Your task to perform on an android device: Toggle the flashlight Image 0: 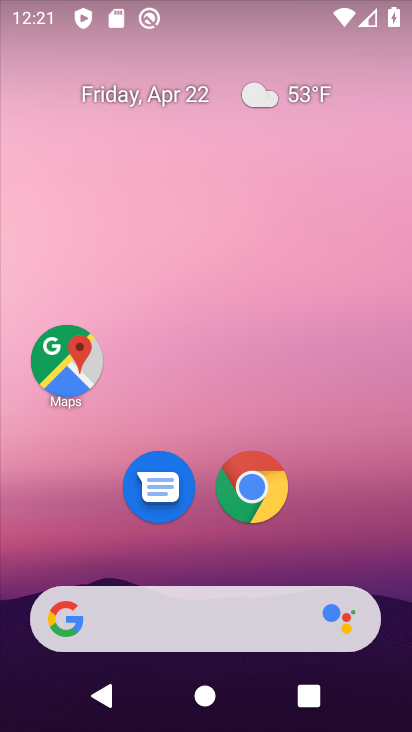
Step 0: drag from (241, 15) to (235, 617)
Your task to perform on an android device: Toggle the flashlight Image 1: 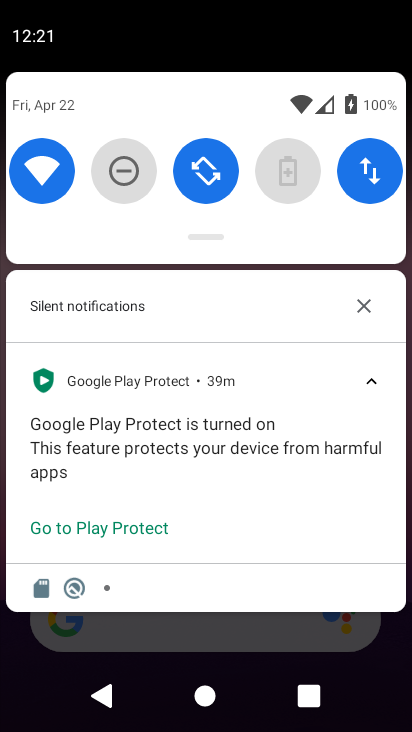
Step 1: drag from (191, 103) to (242, 703)
Your task to perform on an android device: Toggle the flashlight Image 2: 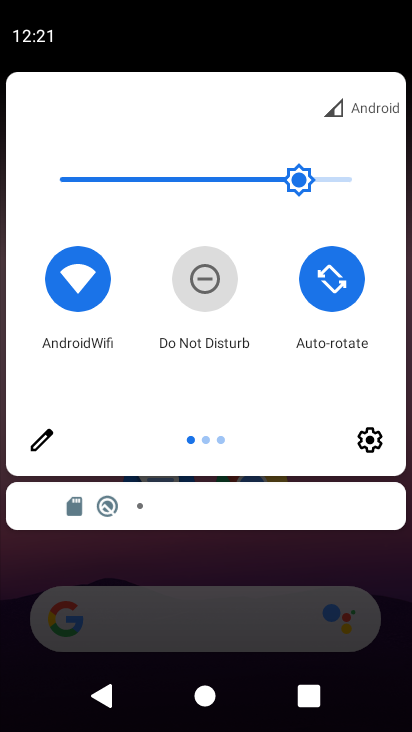
Step 2: click (375, 451)
Your task to perform on an android device: Toggle the flashlight Image 3: 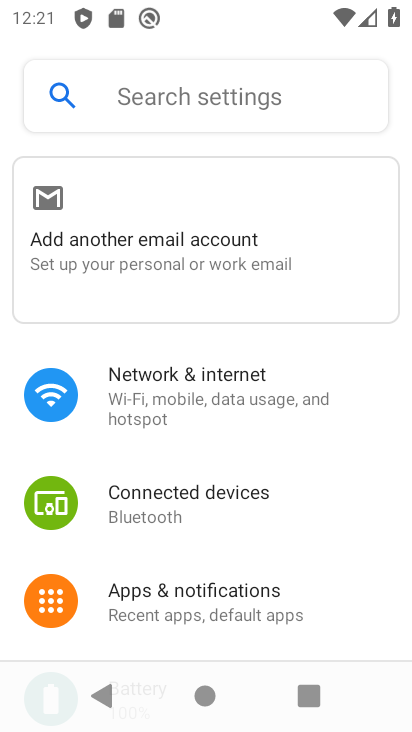
Step 3: task complete